Your task to perform on an android device: Open Google Image 0: 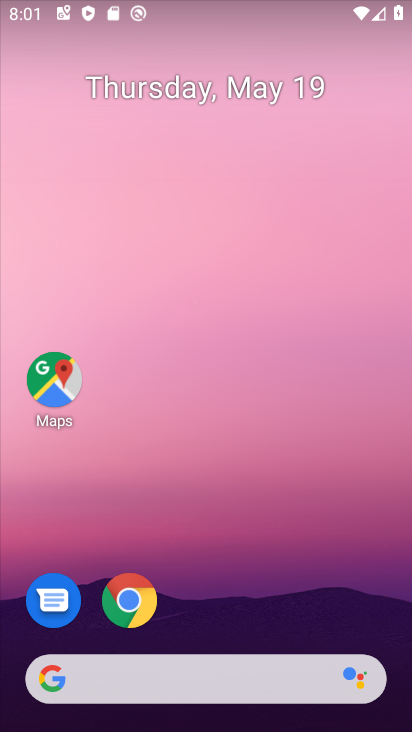
Step 0: drag from (262, 634) to (192, 0)
Your task to perform on an android device: Open Google Image 1: 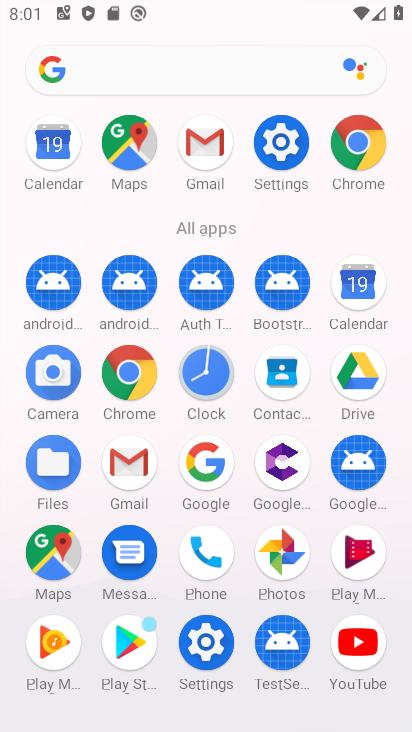
Step 1: click (205, 470)
Your task to perform on an android device: Open Google Image 2: 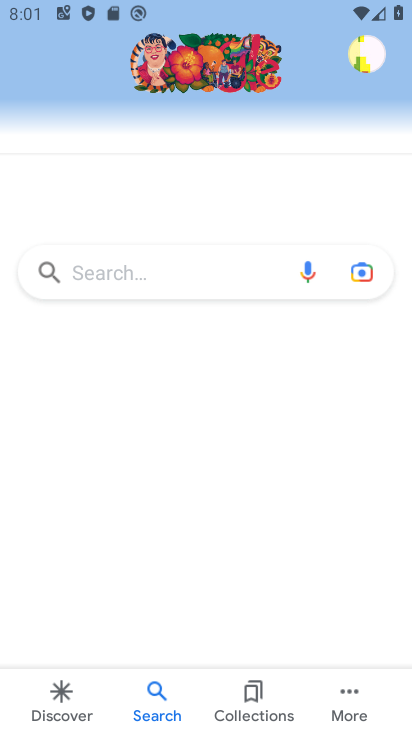
Step 2: task complete